Your task to perform on an android device: Show me popular games on the Play Store Image 0: 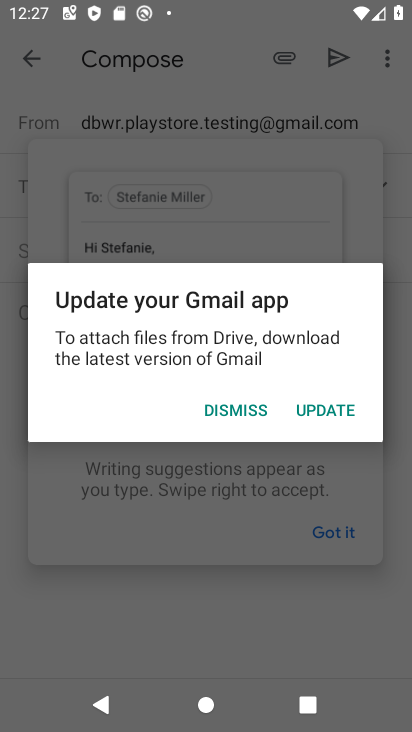
Step 0: press home button
Your task to perform on an android device: Show me popular games on the Play Store Image 1: 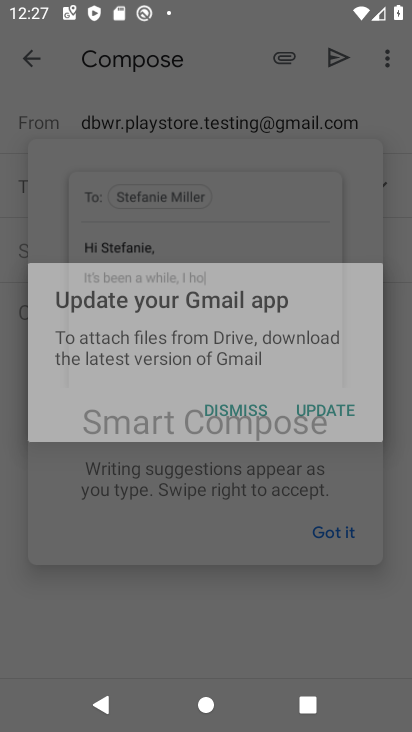
Step 1: press home button
Your task to perform on an android device: Show me popular games on the Play Store Image 2: 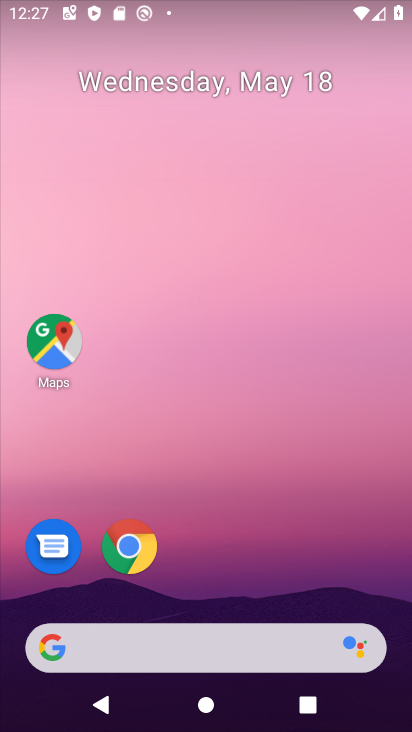
Step 2: drag from (222, 411) to (236, 290)
Your task to perform on an android device: Show me popular games on the Play Store Image 3: 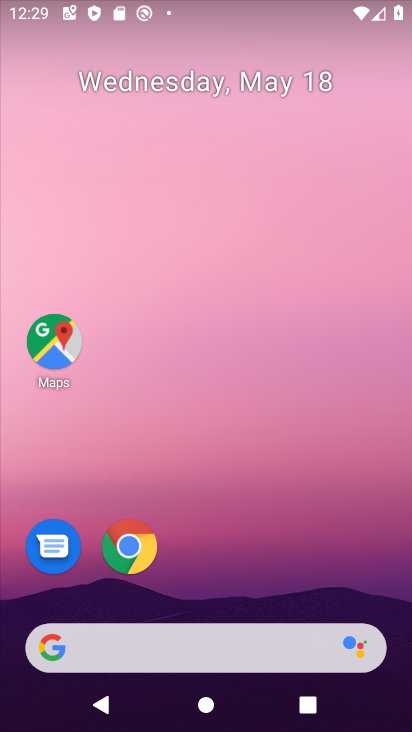
Step 3: drag from (209, 535) to (213, 99)
Your task to perform on an android device: Show me popular games on the Play Store Image 4: 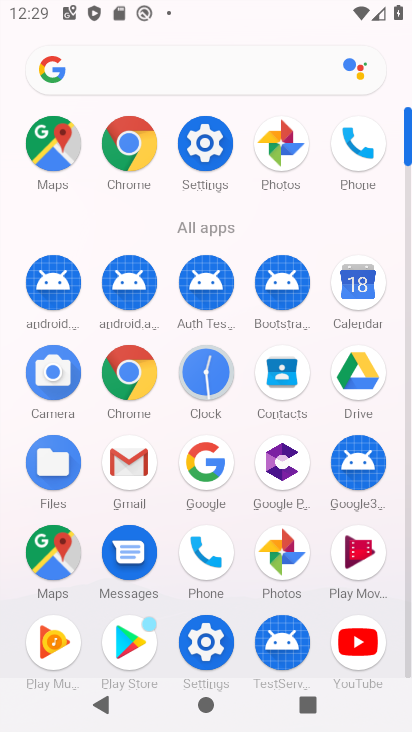
Step 4: click (136, 651)
Your task to perform on an android device: Show me popular games on the Play Store Image 5: 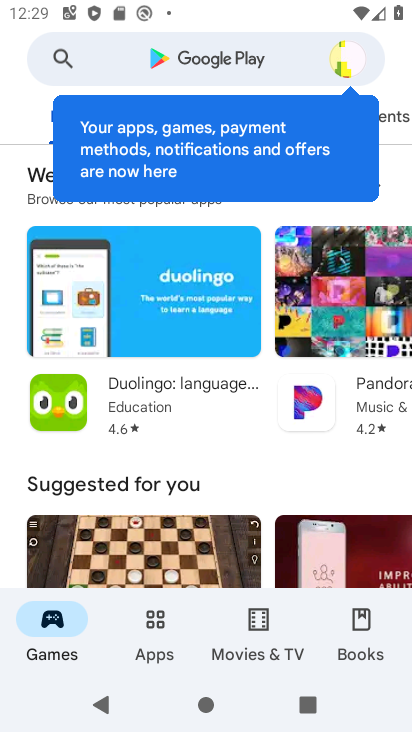
Step 5: click (216, 64)
Your task to perform on an android device: Show me popular games on the Play Store Image 6: 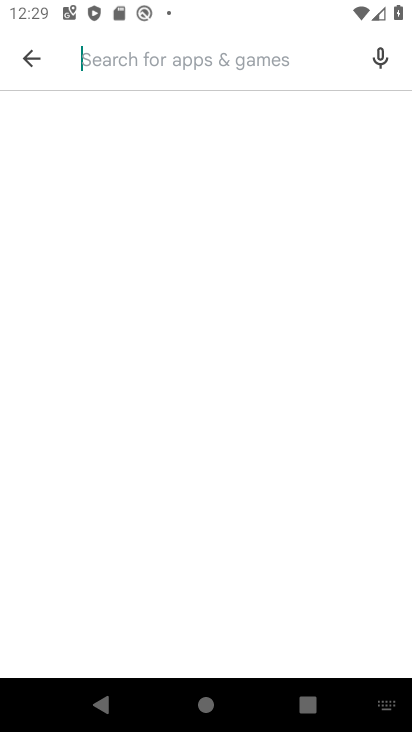
Step 6: click (216, 63)
Your task to perform on an android device: Show me popular games on the Play Store Image 7: 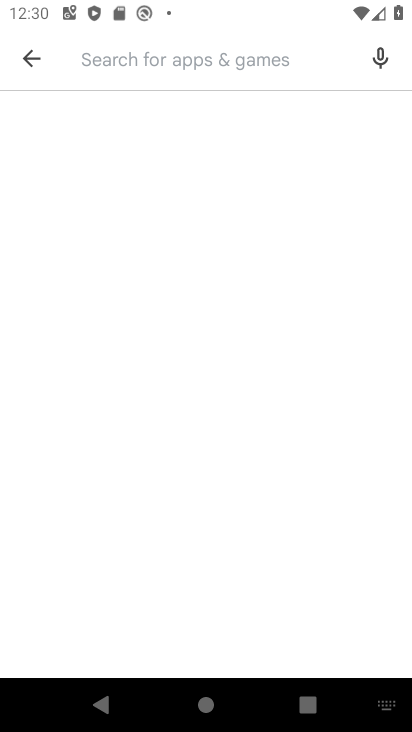
Step 7: type " popular games "
Your task to perform on an android device: Show me popular games on the Play Store Image 8: 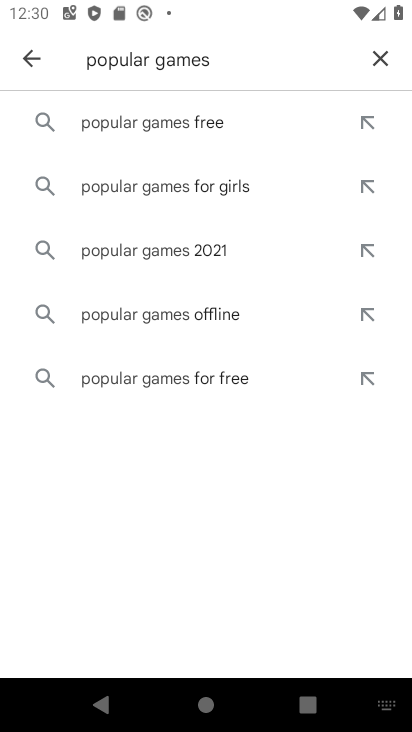
Step 8: click (153, 121)
Your task to perform on an android device: Show me popular games on the Play Store Image 9: 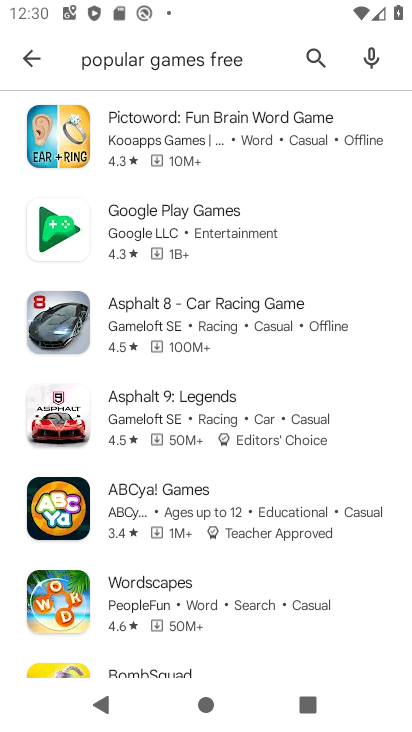
Step 9: click (254, 122)
Your task to perform on an android device: Show me popular games on the Play Store Image 10: 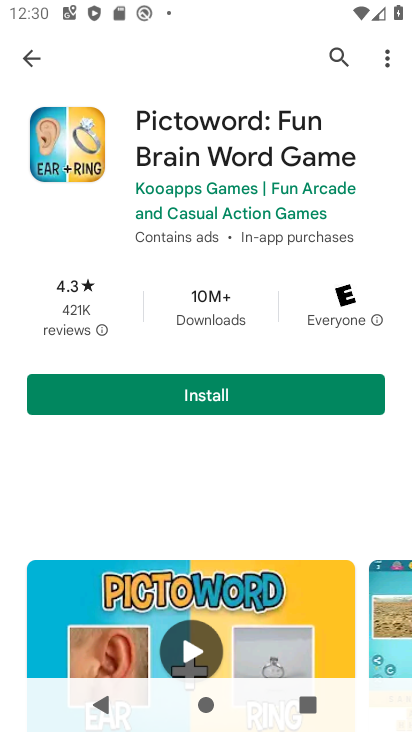
Step 10: task complete